Your task to perform on an android device: Open display settings Image 0: 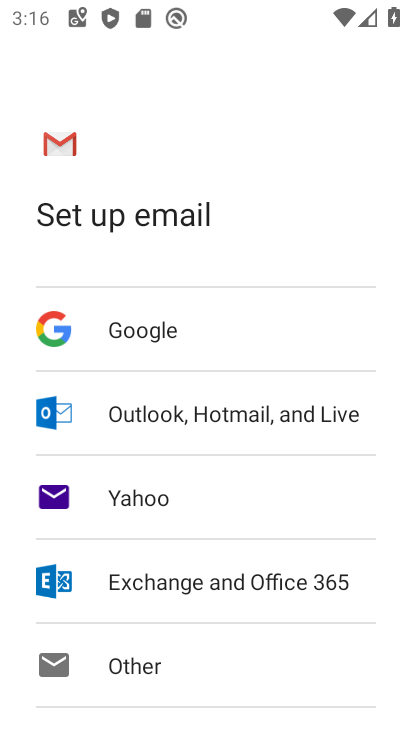
Step 0: press home button
Your task to perform on an android device: Open display settings Image 1: 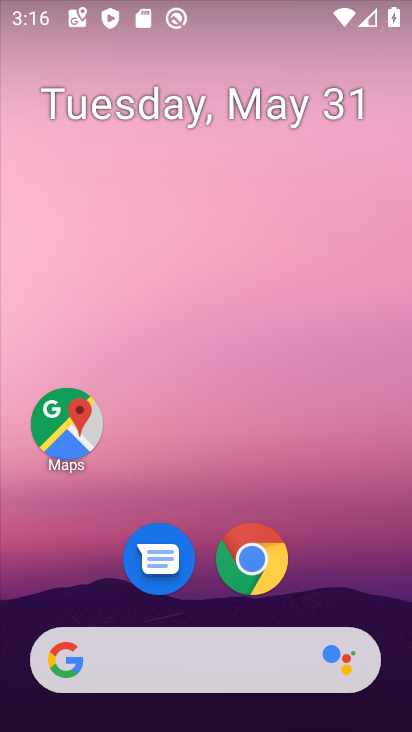
Step 1: drag from (236, 719) to (240, 64)
Your task to perform on an android device: Open display settings Image 2: 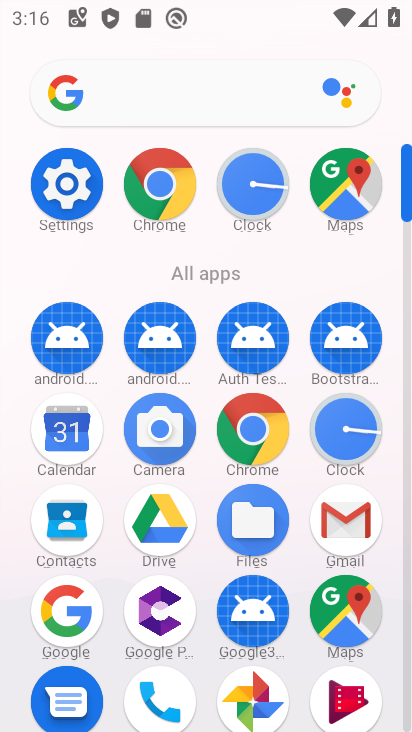
Step 2: click (55, 188)
Your task to perform on an android device: Open display settings Image 3: 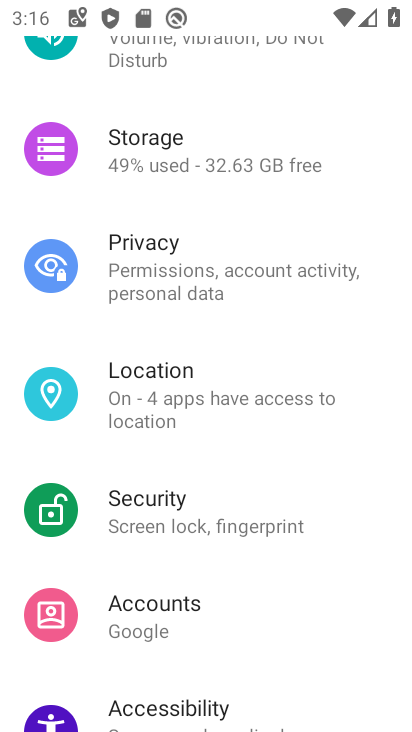
Step 3: drag from (300, 115) to (290, 506)
Your task to perform on an android device: Open display settings Image 4: 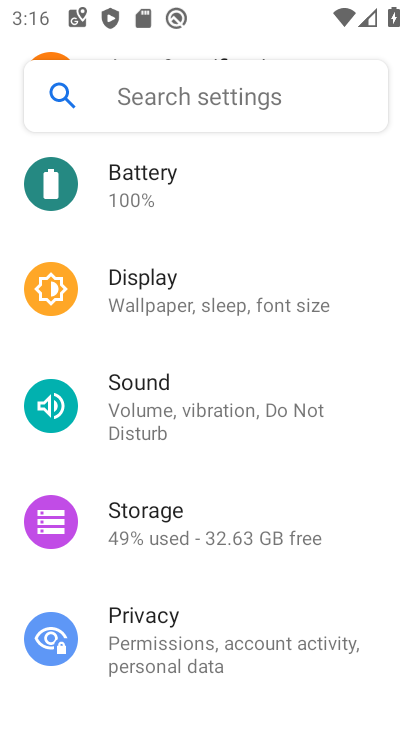
Step 4: click (149, 301)
Your task to perform on an android device: Open display settings Image 5: 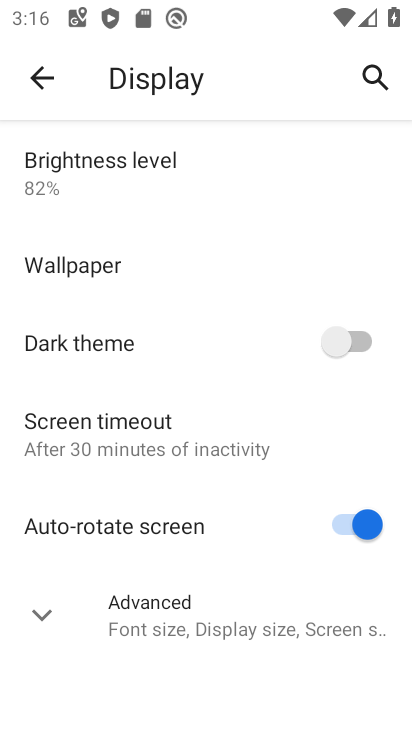
Step 5: task complete